Your task to perform on an android device: check the backup settings in the google photos Image 0: 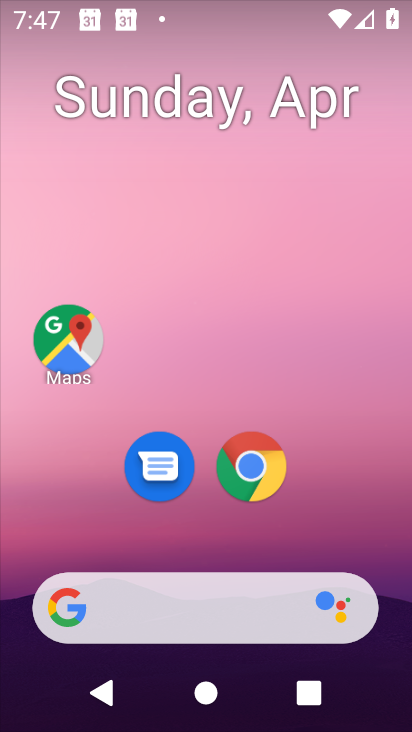
Step 0: drag from (193, 546) to (287, 24)
Your task to perform on an android device: check the backup settings in the google photos Image 1: 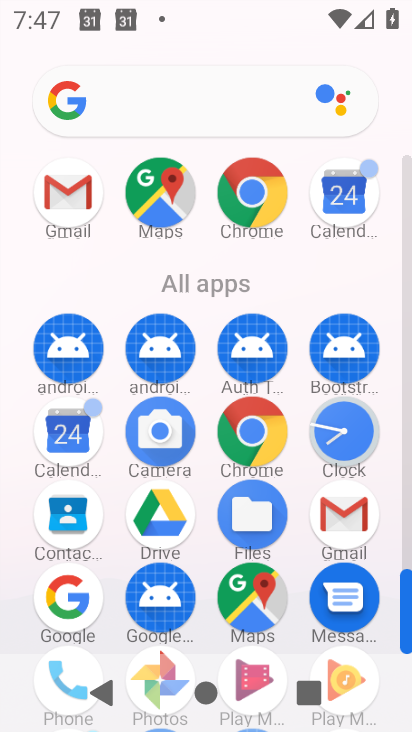
Step 1: drag from (204, 540) to (231, 155)
Your task to perform on an android device: check the backup settings in the google photos Image 2: 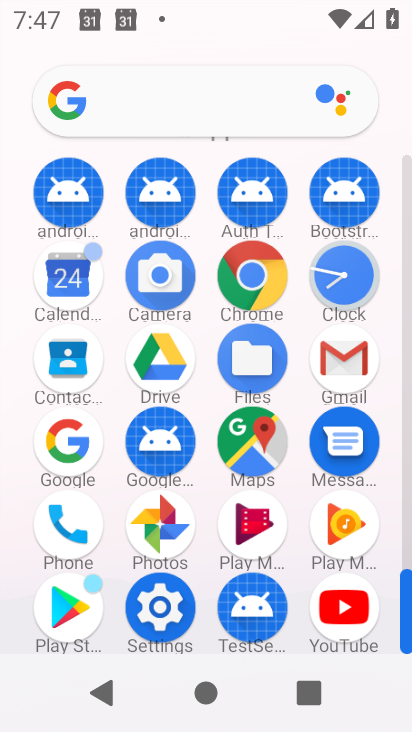
Step 2: click (163, 532)
Your task to perform on an android device: check the backup settings in the google photos Image 3: 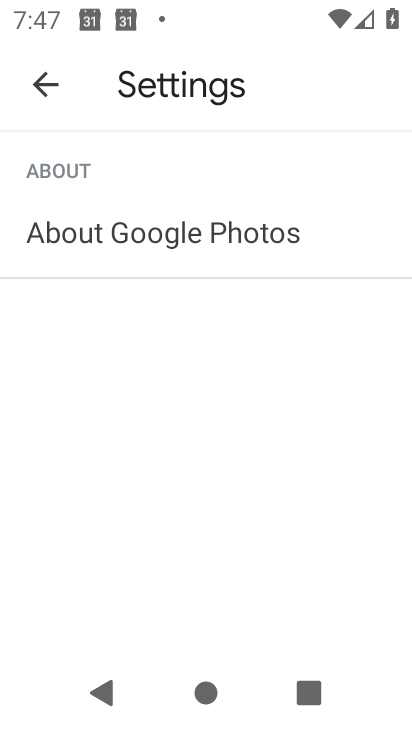
Step 3: click (36, 90)
Your task to perform on an android device: check the backup settings in the google photos Image 4: 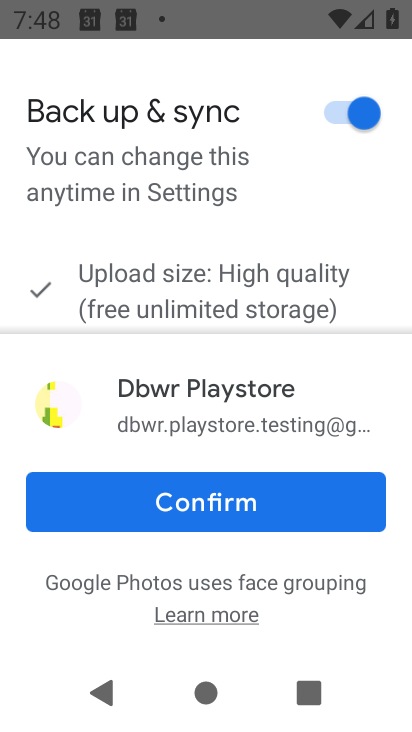
Step 4: click (119, 513)
Your task to perform on an android device: check the backup settings in the google photos Image 5: 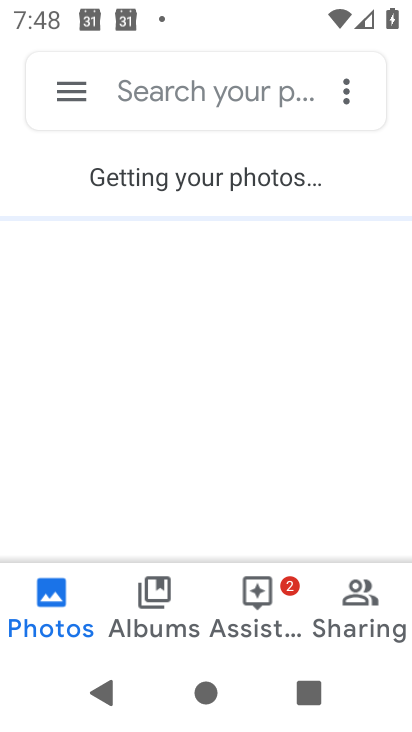
Step 5: click (61, 90)
Your task to perform on an android device: check the backup settings in the google photos Image 6: 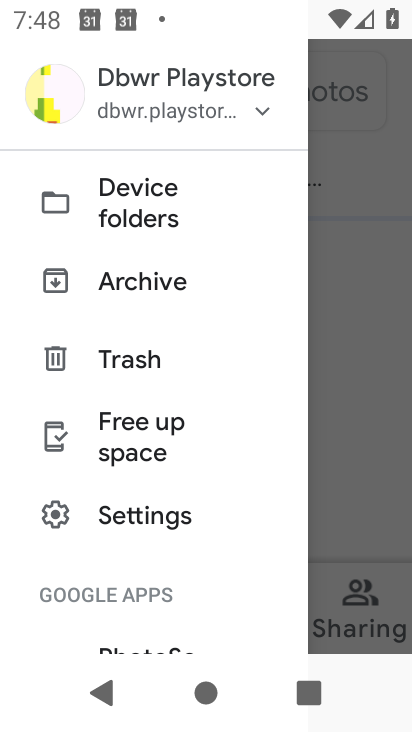
Step 6: drag from (101, 538) to (161, 175)
Your task to perform on an android device: check the backup settings in the google photos Image 7: 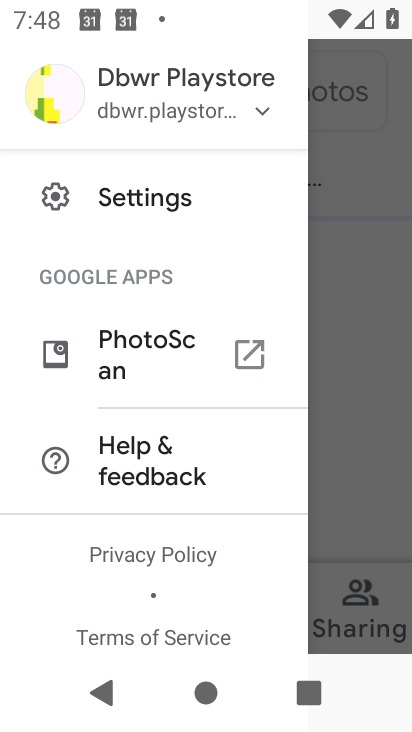
Step 7: click (148, 222)
Your task to perform on an android device: check the backup settings in the google photos Image 8: 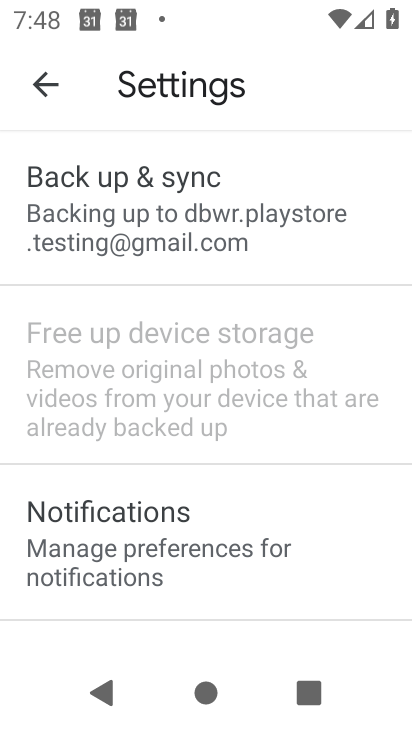
Step 8: click (141, 221)
Your task to perform on an android device: check the backup settings in the google photos Image 9: 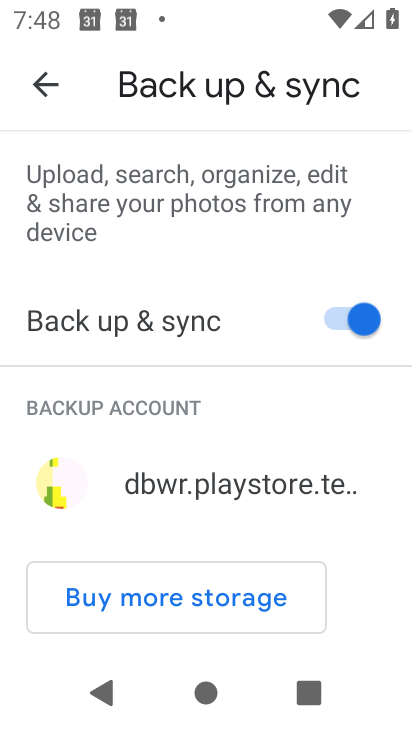
Step 9: task complete